Your task to perform on an android device: Open the phone app and click the voicemail tab. Image 0: 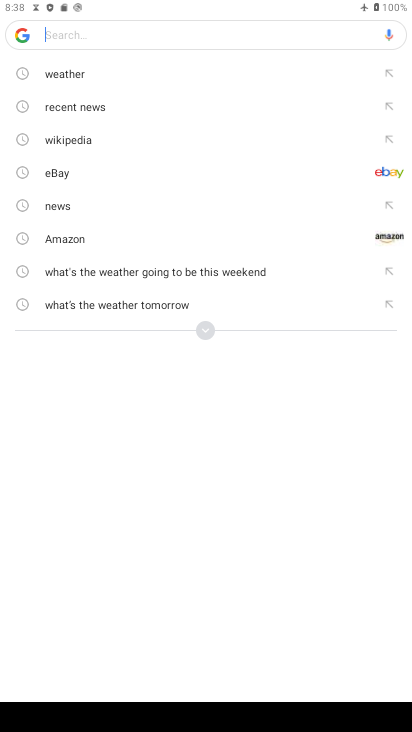
Step 0: press back button
Your task to perform on an android device: Open the phone app and click the voicemail tab. Image 1: 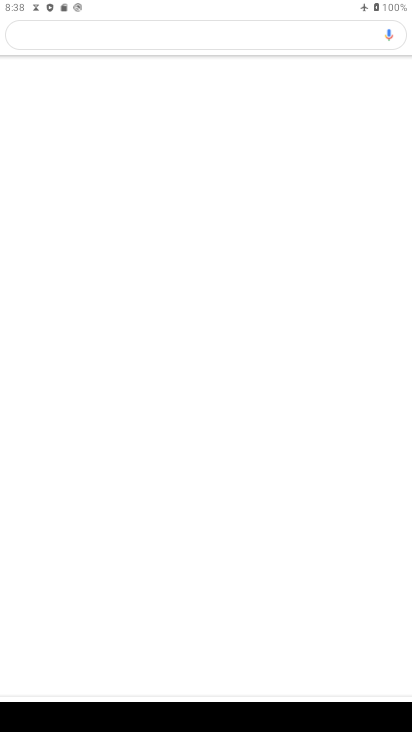
Step 1: press back button
Your task to perform on an android device: Open the phone app and click the voicemail tab. Image 2: 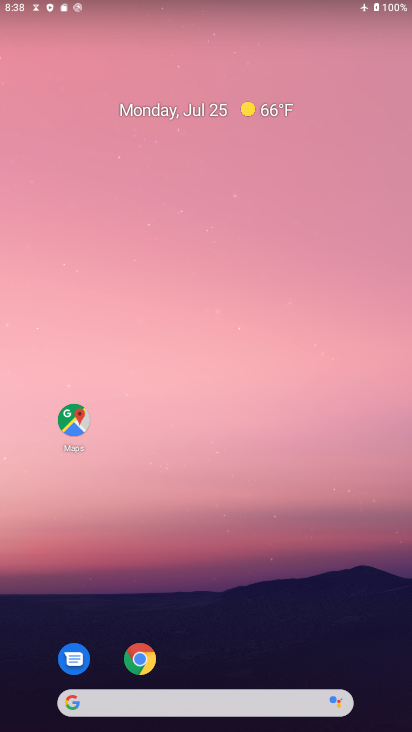
Step 2: drag from (220, 612) to (145, 100)
Your task to perform on an android device: Open the phone app and click the voicemail tab. Image 3: 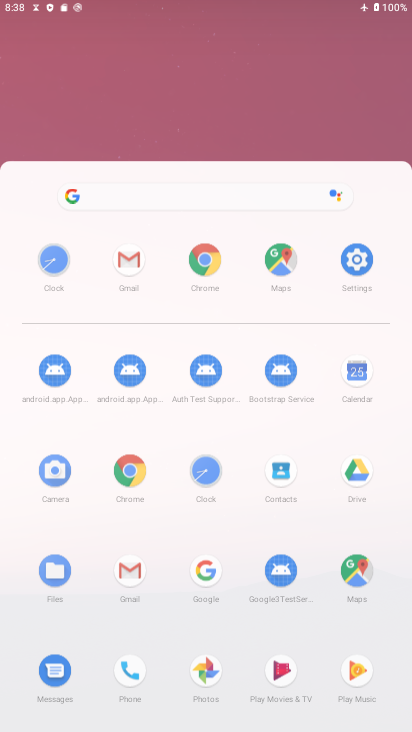
Step 3: drag from (214, 431) to (174, 22)
Your task to perform on an android device: Open the phone app and click the voicemail tab. Image 4: 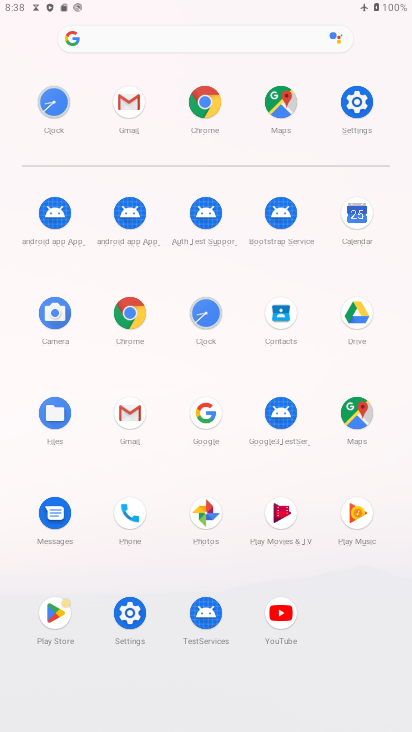
Step 4: click (130, 513)
Your task to perform on an android device: Open the phone app and click the voicemail tab. Image 5: 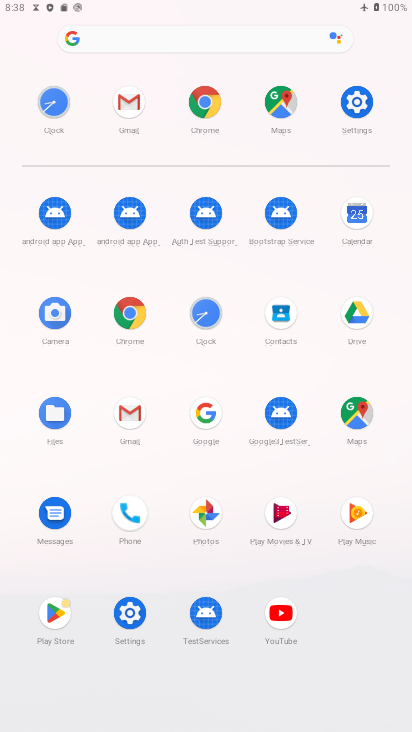
Step 5: click (130, 513)
Your task to perform on an android device: Open the phone app and click the voicemail tab. Image 6: 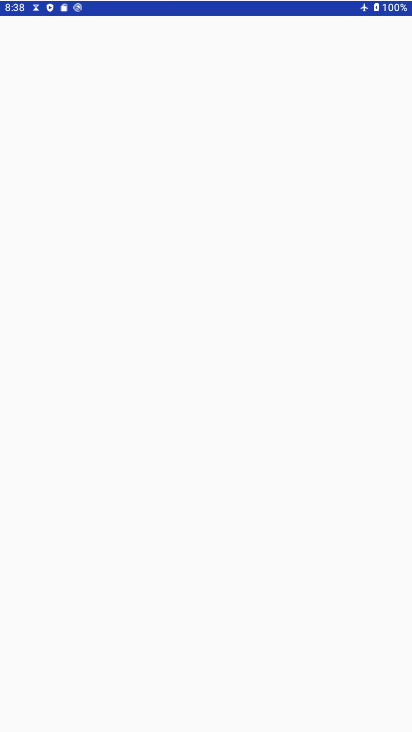
Step 6: click (134, 516)
Your task to perform on an android device: Open the phone app and click the voicemail tab. Image 7: 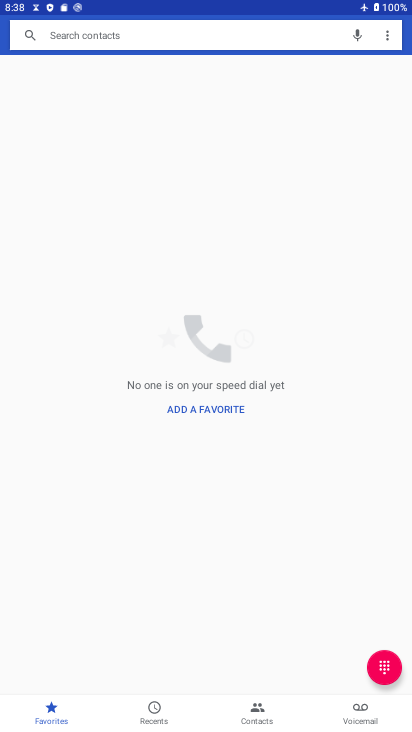
Step 7: click (359, 702)
Your task to perform on an android device: Open the phone app and click the voicemail tab. Image 8: 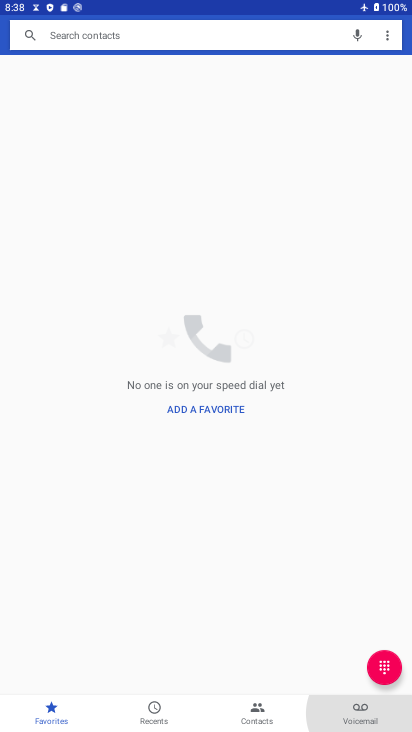
Step 8: click (359, 702)
Your task to perform on an android device: Open the phone app and click the voicemail tab. Image 9: 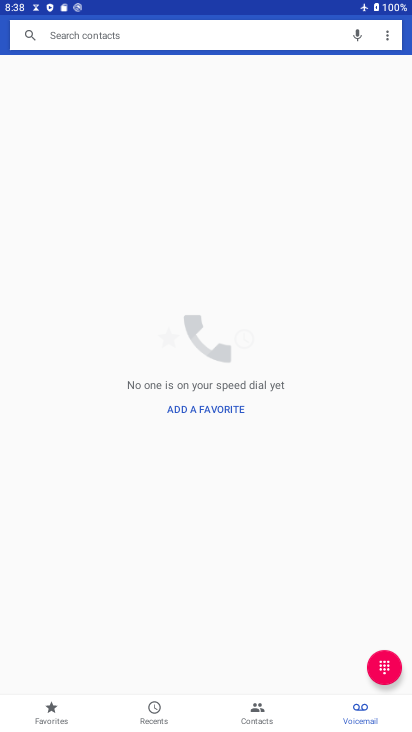
Step 9: click (359, 702)
Your task to perform on an android device: Open the phone app and click the voicemail tab. Image 10: 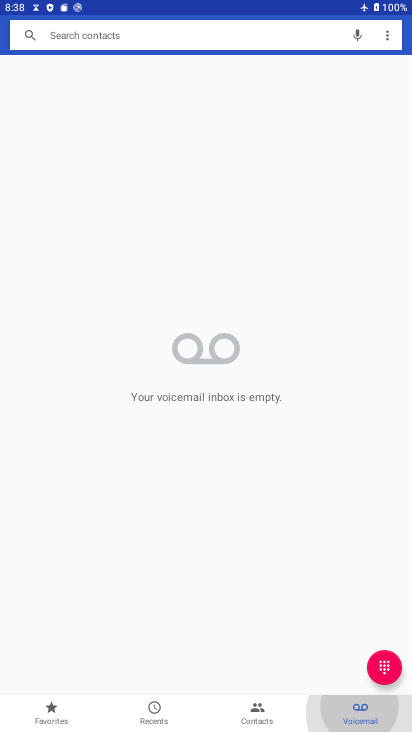
Step 10: click (359, 705)
Your task to perform on an android device: Open the phone app and click the voicemail tab. Image 11: 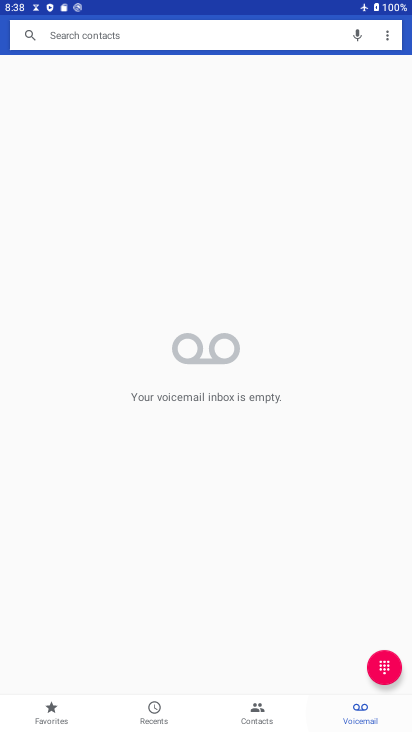
Step 11: click (362, 713)
Your task to perform on an android device: Open the phone app and click the voicemail tab. Image 12: 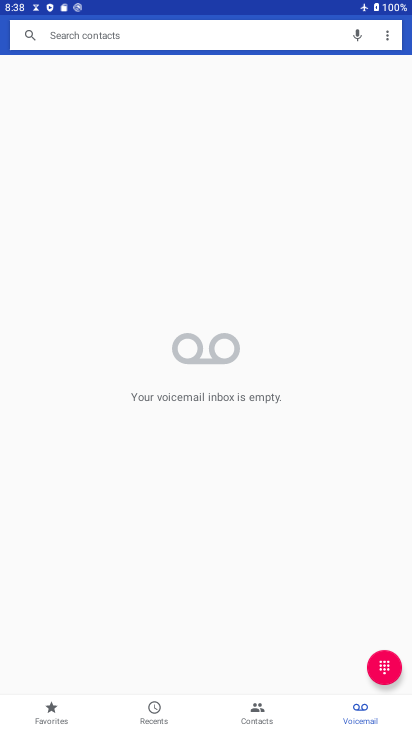
Step 12: press back button
Your task to perform on an android device: Open the phone app and click the voicemail tab. Image 13: 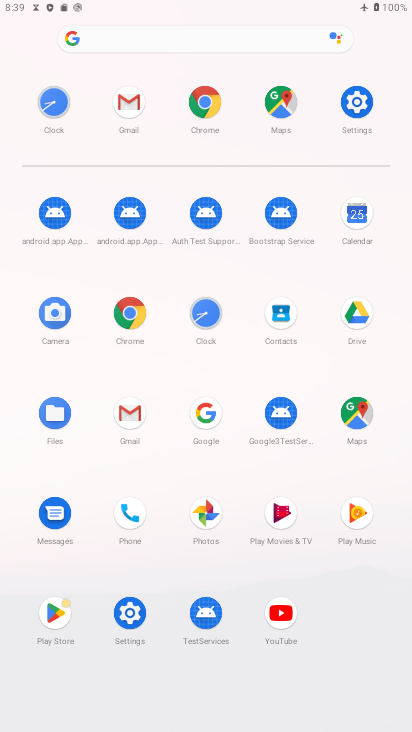
Step 13: click (126, 508)
Your task to perform on an android device: Open the phone app and click the voicemail tab. Image 14: 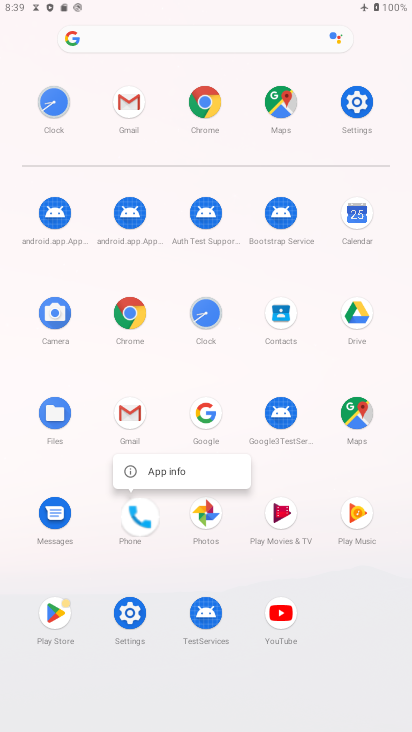
Step 14: click (135, 512)
Your task to perform on an android device: Open the phone app and click the voicemail tab. Image 15: 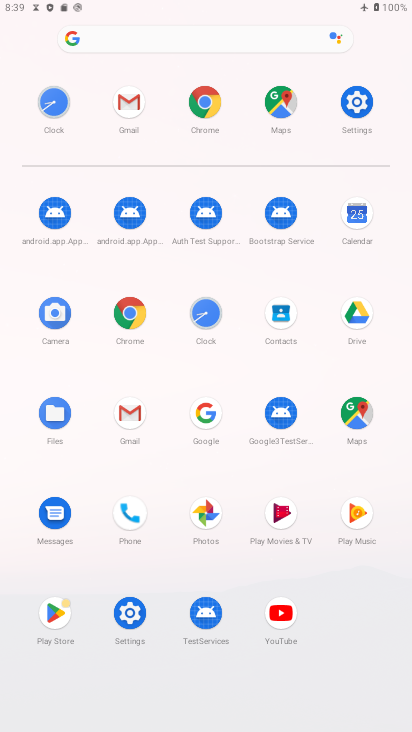
Step 15: click (134, 513)
Your task to perform on an android device: Open the phone app and click the voicemail tab. Image 16: 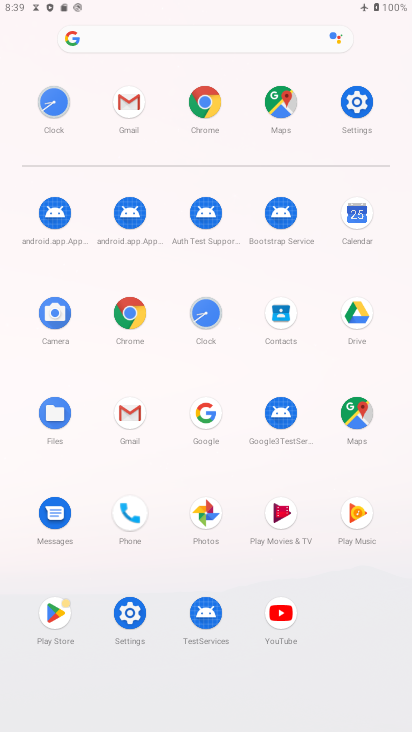
Step 16: click (134, 514)
Your task to perform on an android device: Open the phone app and click the voicemail tab. Image 17: 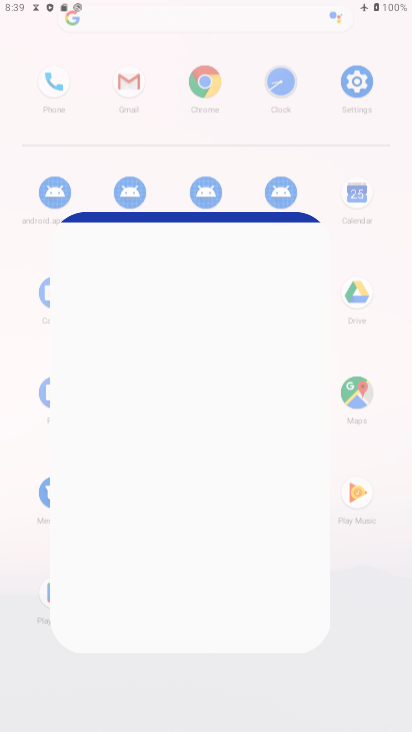
Step 17: click (135, 514)
Your task to perform on an android device: Open the phone app and click the voicemail tab. Image 18: 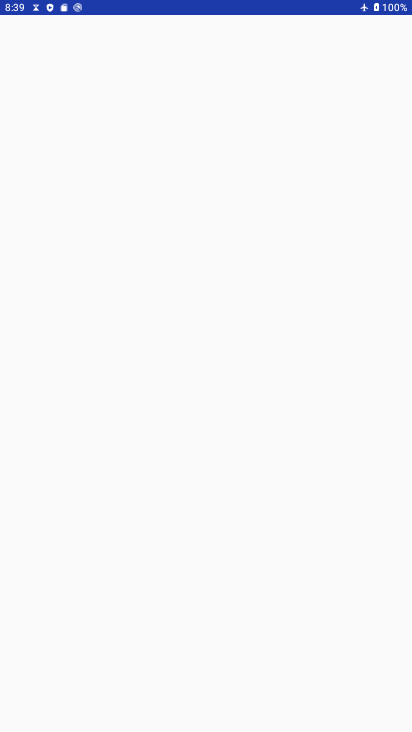
Step 18: click (136, 514)
Your task to perform on an android device: Open the phone app and click the voicemail tab. Image 19: 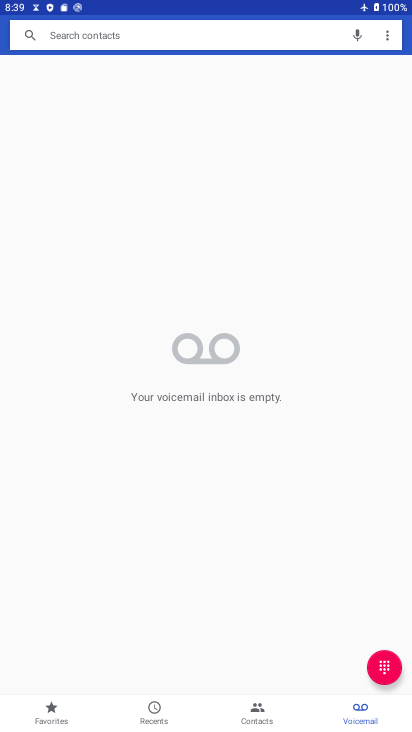
Step 19: click (361, 701)
Your task to perform on an android device: Open the phone app and click the voicemail tab. Image 20: 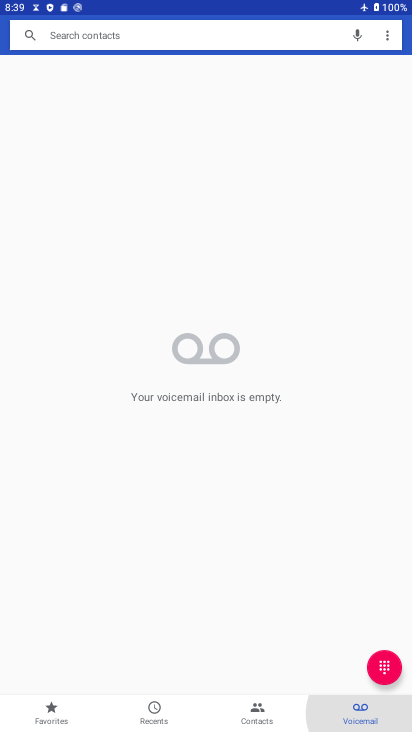
Step 20: click (361, 703)
Your task to perform on an android device: Open the phone app and click the voicemail tab. Image 21: 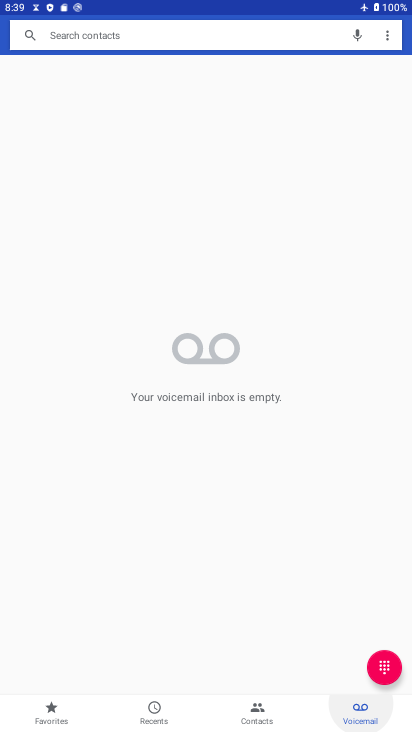
Step 21: click (361, 704)
Your task to perform on an android device: Open the phone app and click the voicemail tab. Image 22: 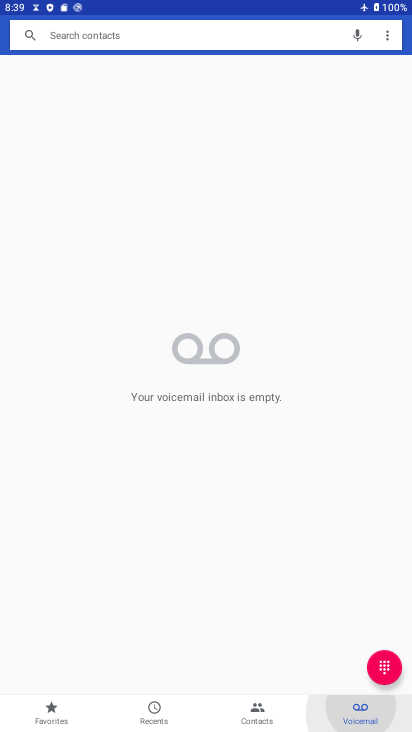
Step 22: click (360, 705)
Your task to perform on an android device: Open the phone app and click the voicemail tab. Image 23: 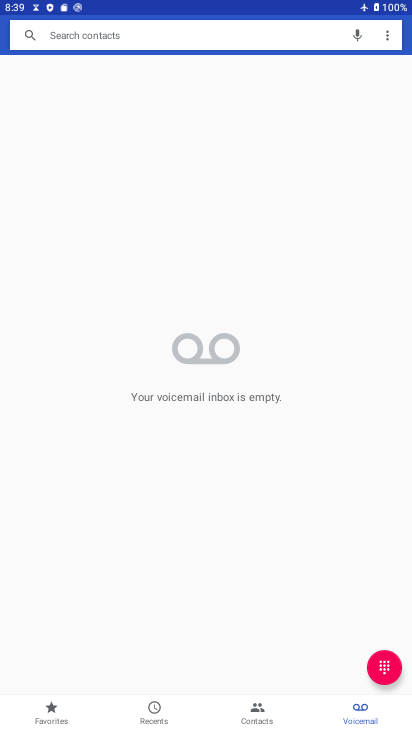
Step 23: task complete